Your task to perform on an android device: Go to sound settings Image 0: 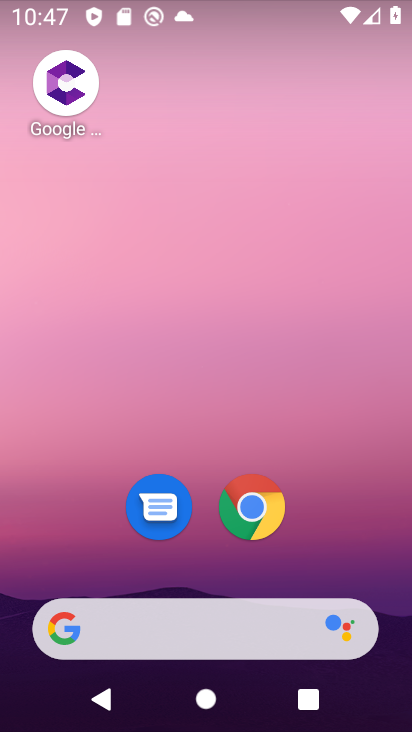
Step 0: drag from (322, 507) to (211, 73)
Your task to perform on an android device: Go to sound settings Image 1: 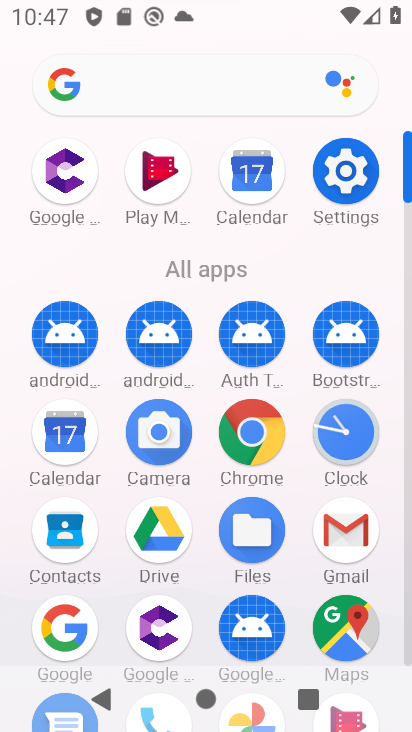
Step 1: click (343, 163)
Your task to perform on an android device: Go to sound settings Image 2: 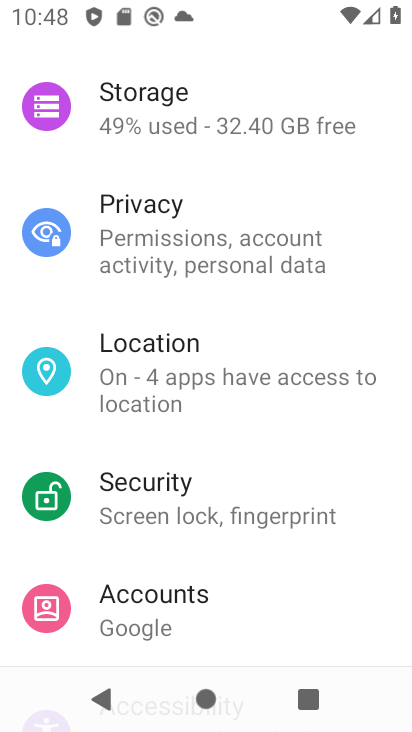
Step 2: drag from (205, 423) to (166, 244)
Your task to perform on an android device: Go to sound settings Image 3: 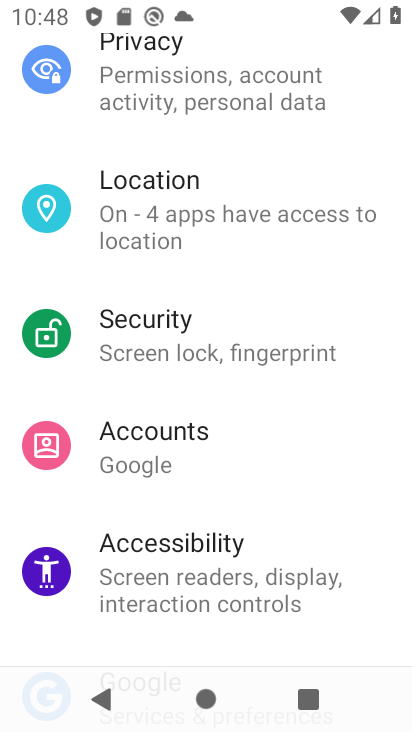
Step 3: drag from (169, 506) to (129, 202)
Your task to perform on an android device: Go to sound settings Image 4: 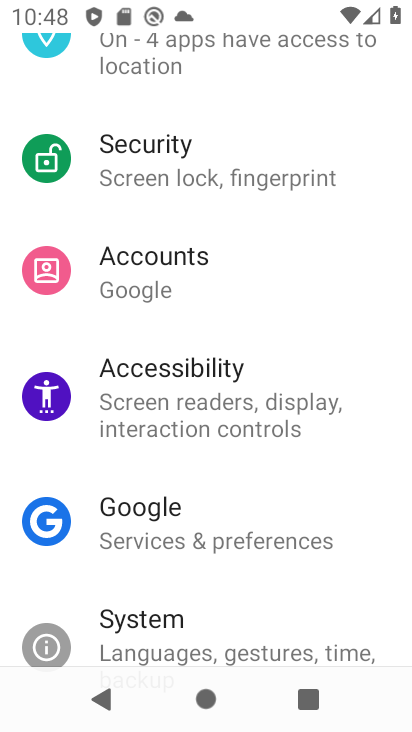
Step 4: drag from (213, 318) to (193, 683)
Your task to perform on an android device: Go to sound settings Image 5: 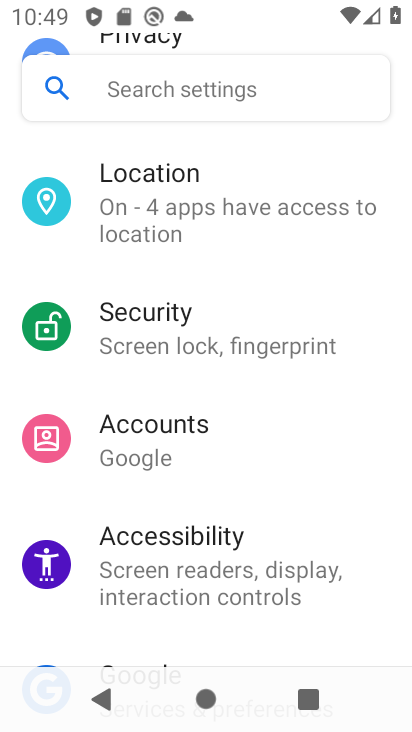
Step 5: drag from (223, 437) to (230, 673)
Your task to perform on an android device: Go to sound settings Image 6: 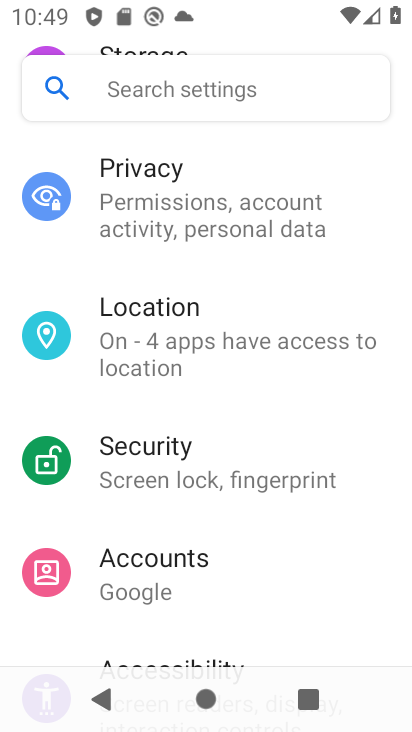
Step 6: drag from (222, 286) to (232, 590)
Your task to perform on an android device: Go to sound settings Image 7: 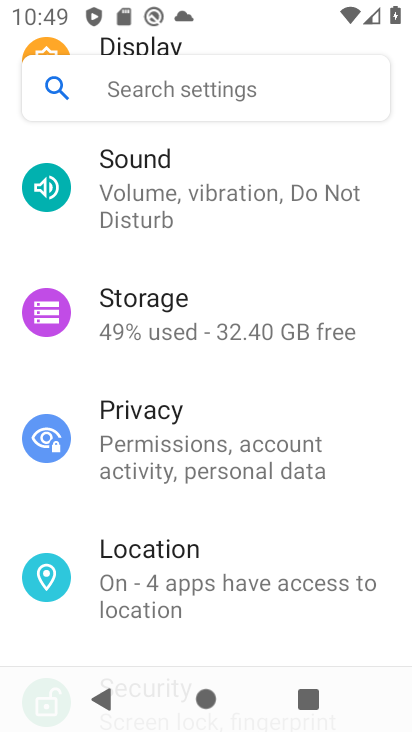
Step 7: drag from (192, 235) to (203, 432)
Your task to perform on an android device: Go to sound settings Image 8: 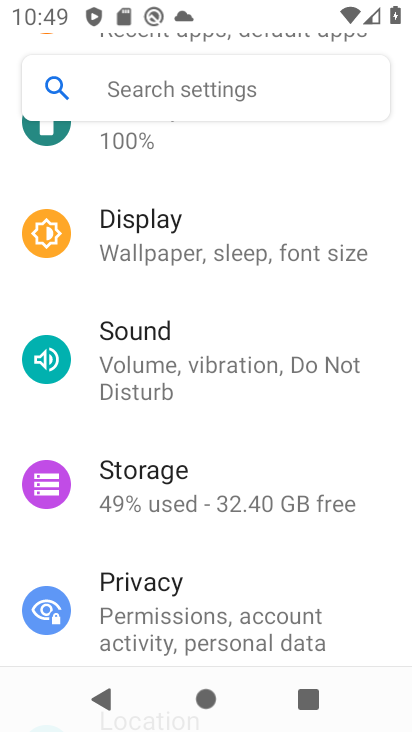
Step 8: click (131, 337)
Your task to perform on an android device: Go to sound settings Image 9: 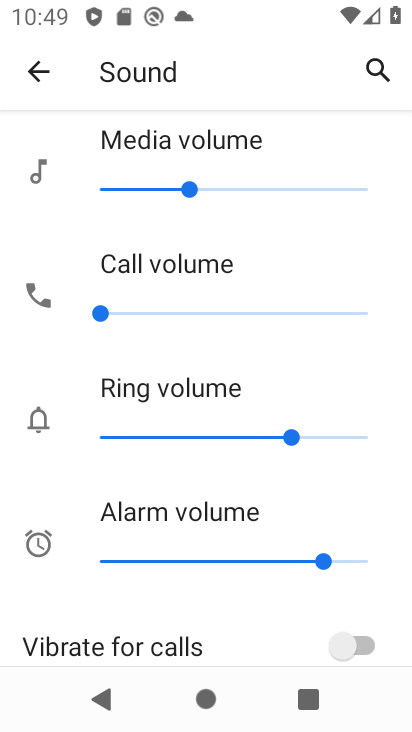
Step 9: task complete